Your task to perform on an android device: add a contact in the contacts app Image 0: 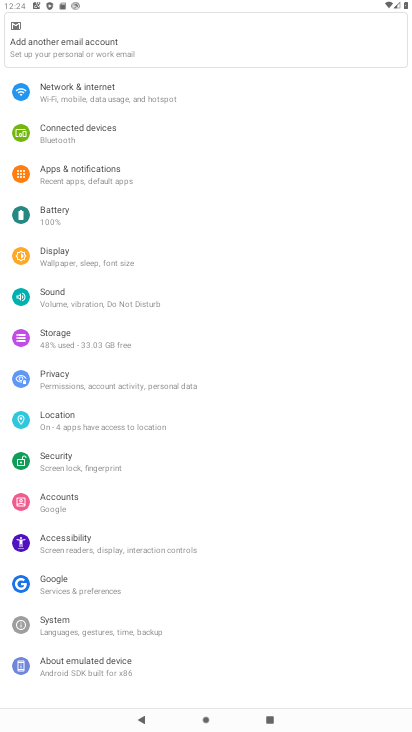
Step 0: press home button
Your task to perform on an android device: add a contact in the contacts app Image 1: 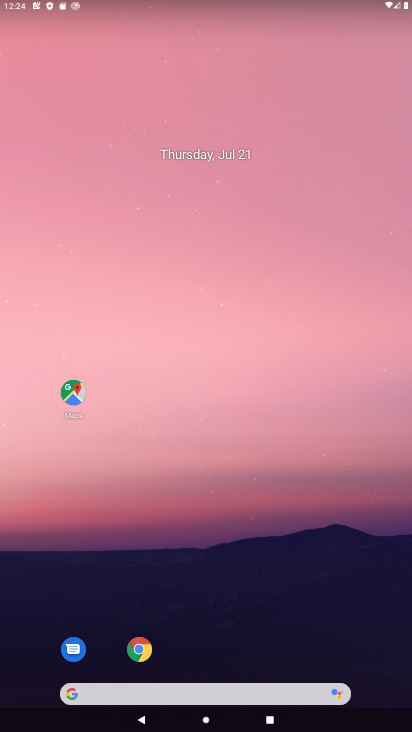
Step 1: drag from (396, 682) to (344, 94)
Your task to perform on an android device: add a contact in the contacts app Image 2: 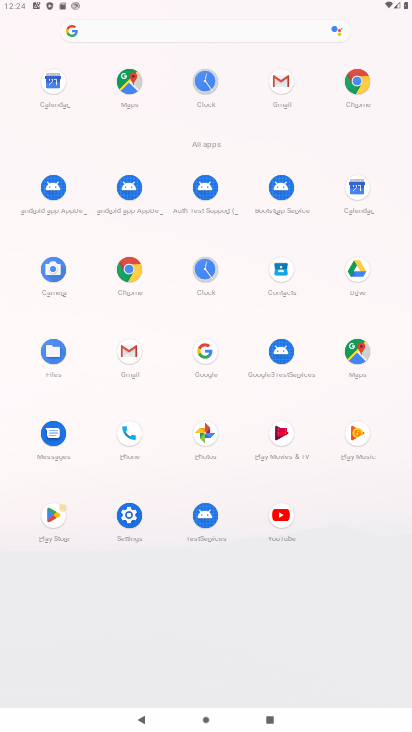
Step 2: click (281, 269)
Your task to perform on an android device: add a contact in the contacts app Image 3: 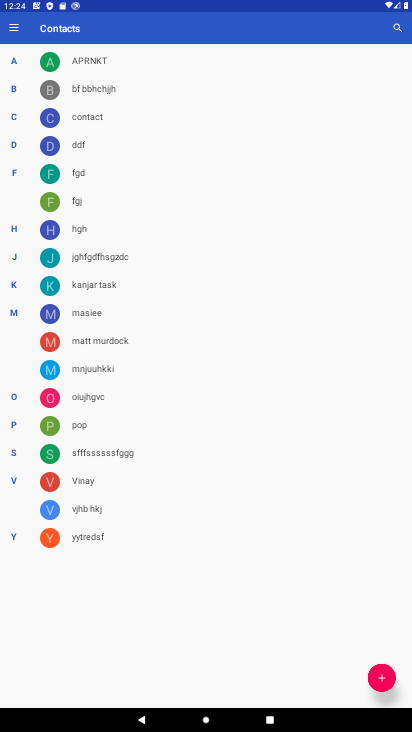
Step 3: click (385, 679)
Your task to perform on an android device: add a contact in the contacts app Image 4: 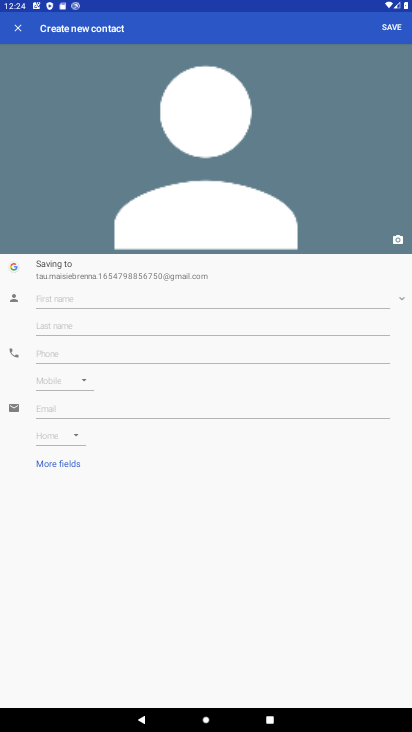
Step 4: click (72, 301)
Your task to perform on an android device: add a contact in the contacts app Image 5: 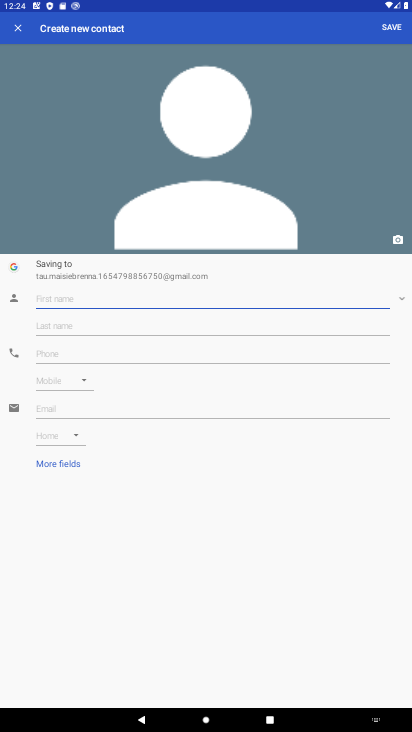
Step 5: type "oiuypukhgn"
Your task to perform on an android device: add a contact in the contacts app Image 6: 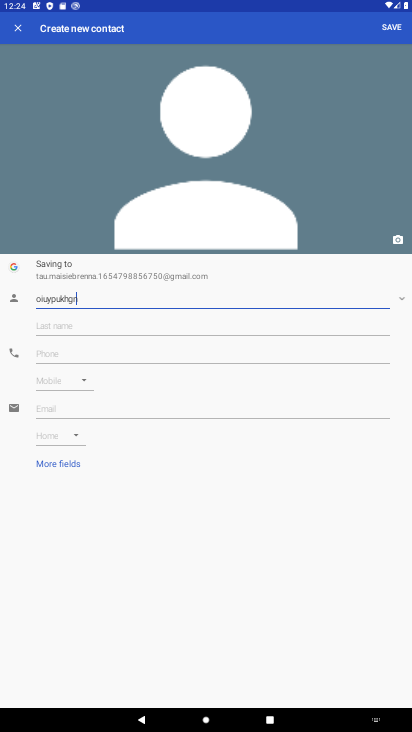
Step 6: click (65, 351)
Your task to perform on an android device: add a contact in the contacts app Image 7: 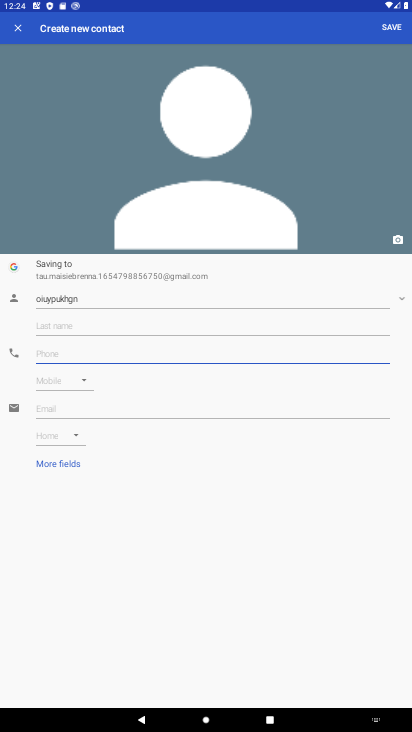
Step 7: type "09765422440"
Your task to perform on an android device: add a contact in the contacts app Image 8: 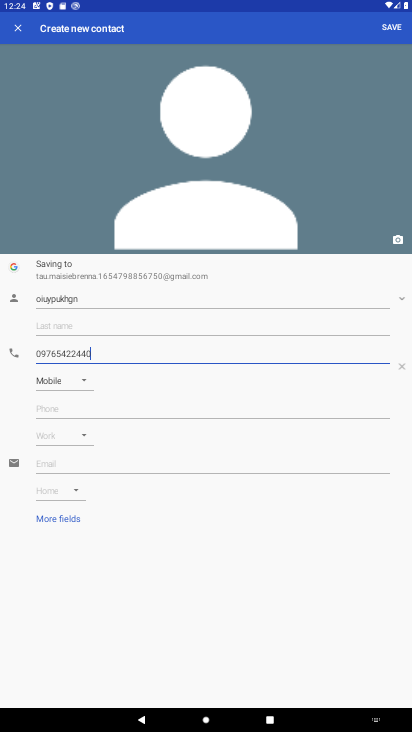
Step 8: click (388, 24)
Your task to perform on an android device: add a contact in the contacts app Image 9: 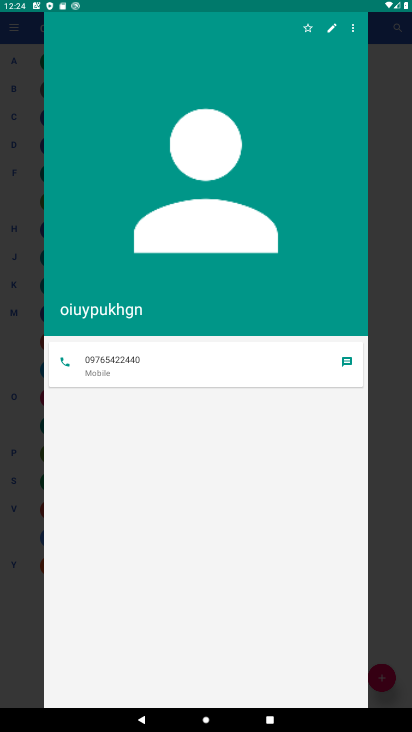
Step 9: task complete